Your task to perform on an android device: Open the Play Movies app and select the watchlist tab. Image 0: 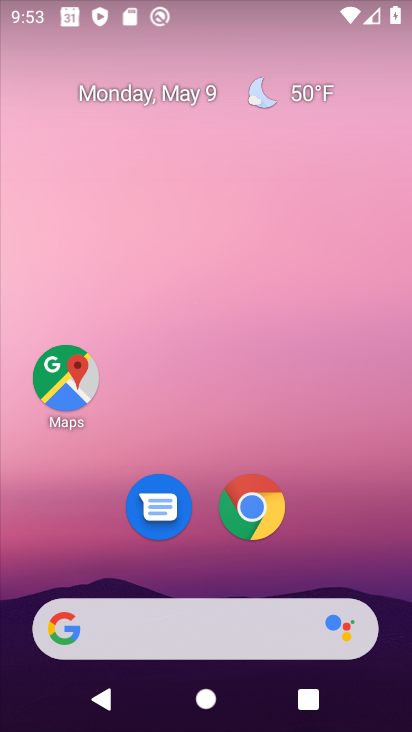
Step 0: drag from (334, 556) to (328, 113)
Your task to perform on an android device: Open the Play Movies app and select the watchlist tab. Image 1: 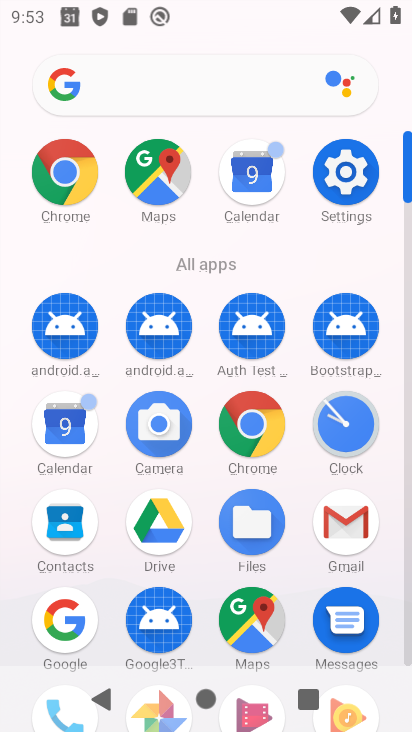
Step 1: drag from (198, 301) to (203, 186)
Your task to perform on an android device: Open the Play Movies app and select the watchlist tab. Image 2: 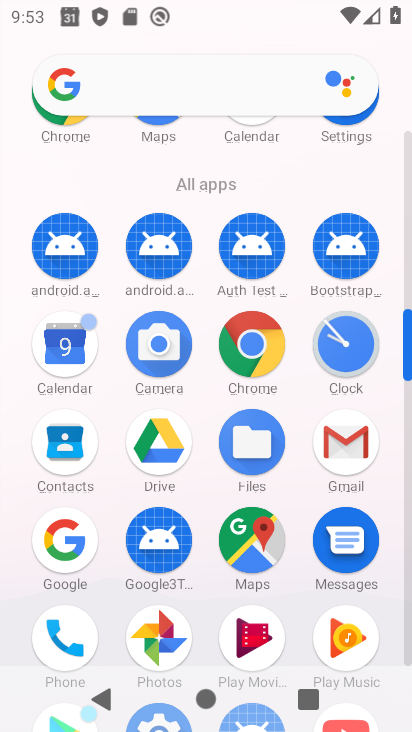
Step 2: click (251, 636)
Your task to perform on an android device: Open the Play Movies app and select the watchlist tab. Image 3: 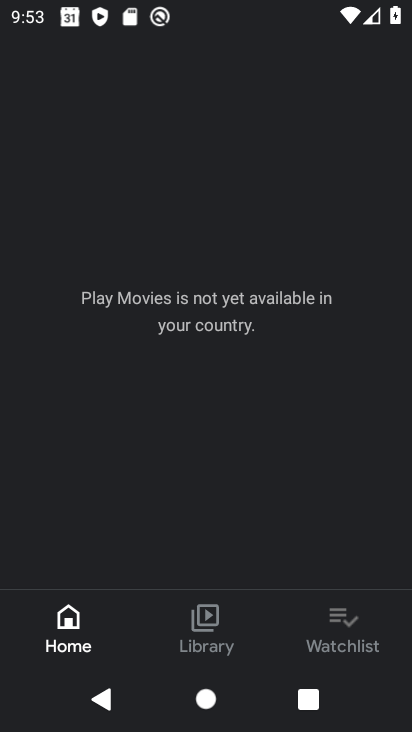
Step 3: click (338, 614)
Your task to perform on an android device: Open the Play Movies app and select the watchlist tab. Image 4: 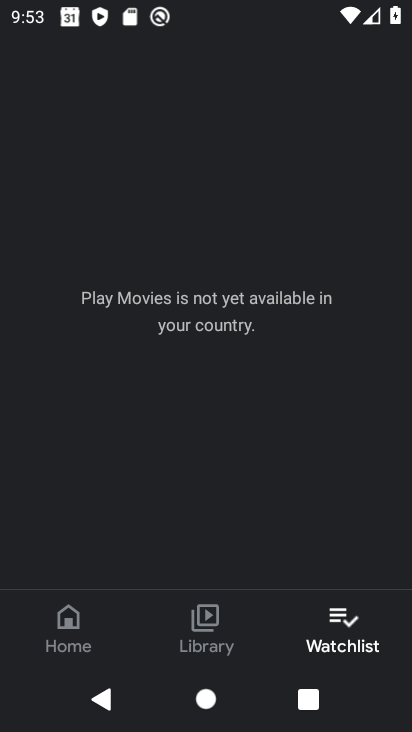
Step 4: task complete